Your task to perform on an android device: open sync settings in chrome Image 0: 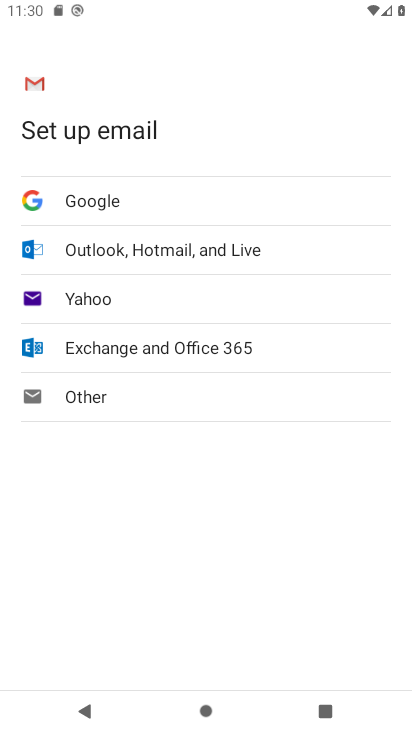
Step 0: press home button
Your task to perform on an android device: open sync settings in chrome Image 1: 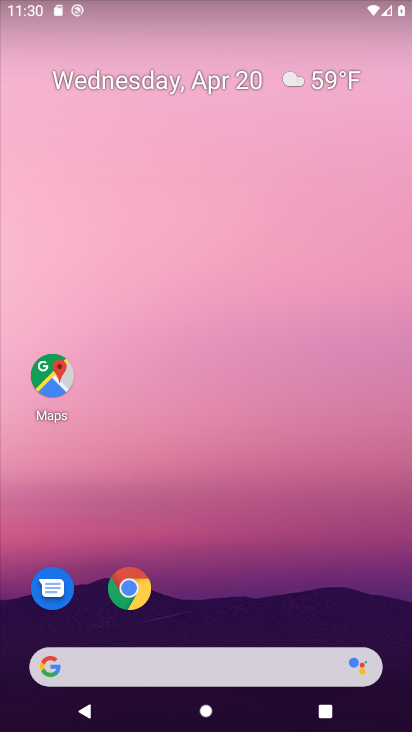
Step 1: click (124, 588)
Your task to perform on an android device: open sync settings in chrome Image 2: 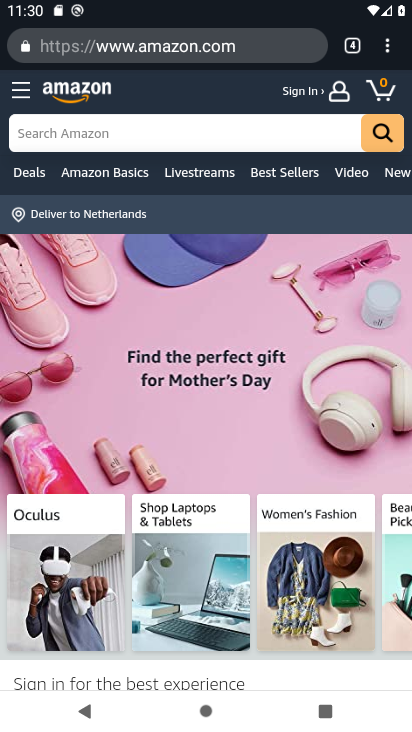
Step 2: click (388, 51)
Your task to perform on an android device: open sync settings in chrome Image 3: 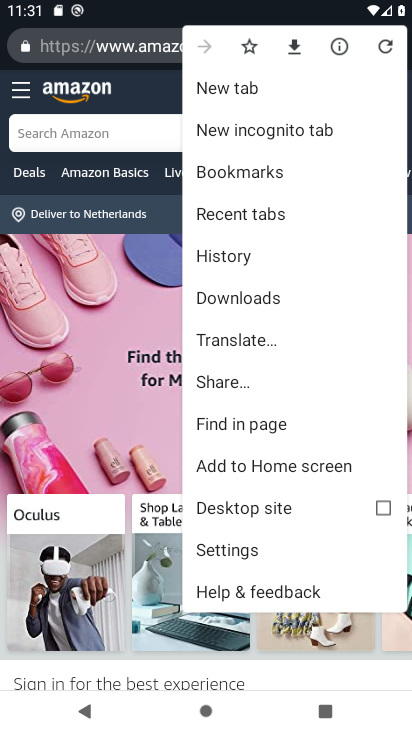
Step 3: click (227, 543)
Your task to perform on an android device: open sync settings in chrome Image 4: 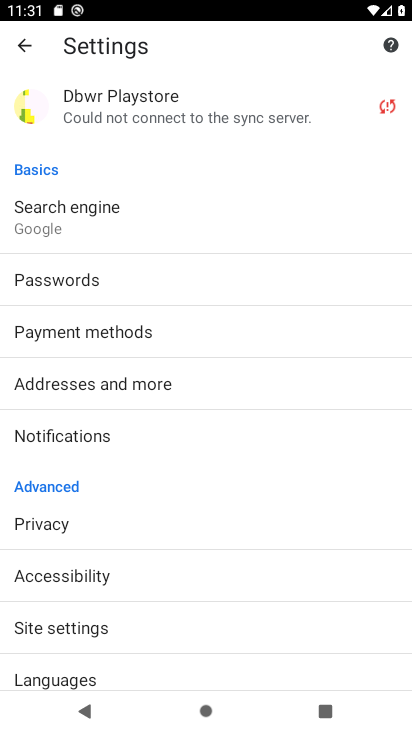
Step 4: click (120, 103)
Your task to perform on an android device: open sync settings in chrome Image 5: 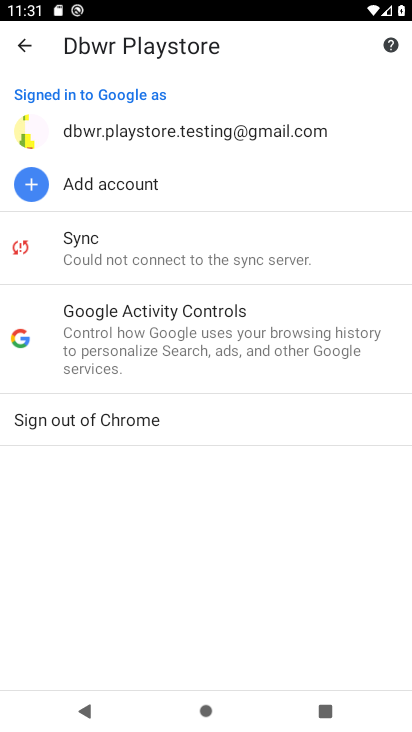
Step 5: click (81, 253)
Your task to perform on an android device: open sync settings in chrome Image 6: 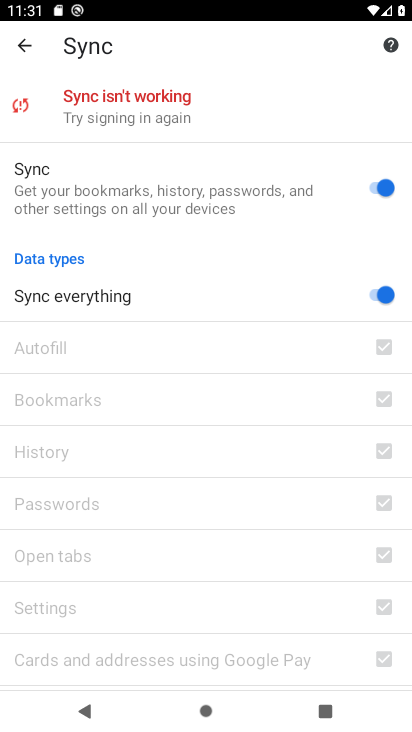
Step 6: task complete